Your task to perform on an android device: Show me recent news Image 0: 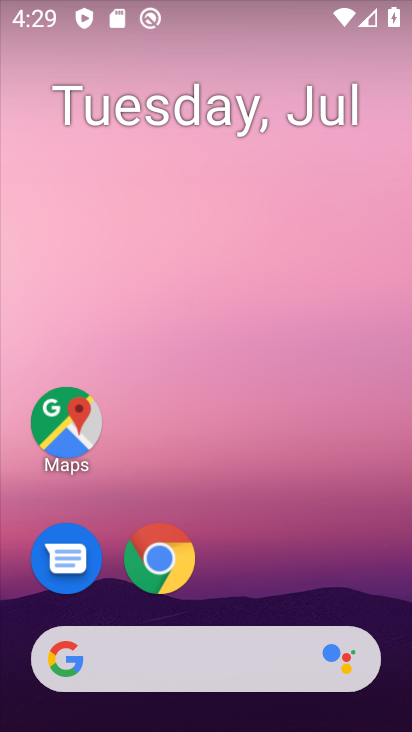
Step 0: drag from (281, 625) to (269, 144)
Your task to perform on an android device: Show me recent news Image 1: 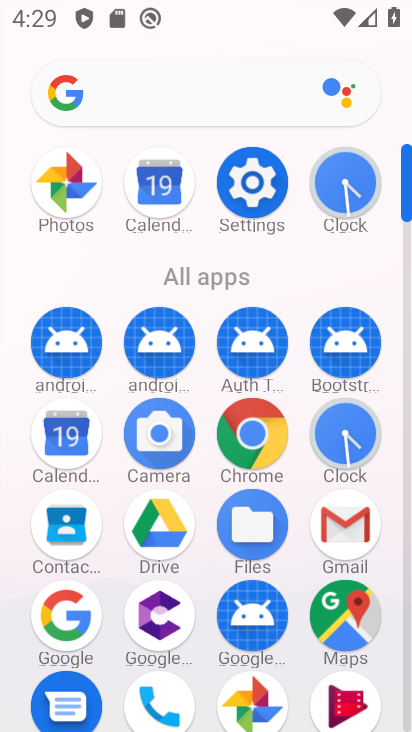
Step 1: drag from (241, 581) to (213, 263)
Your task to perform on an android device: Show me recent news Image 2: 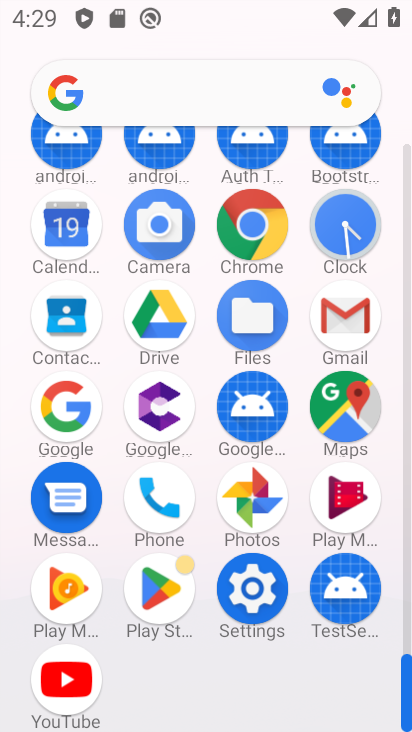
Step 2: click (79, 411)
Your task to perform on an android device: Show me recent news Image 3: 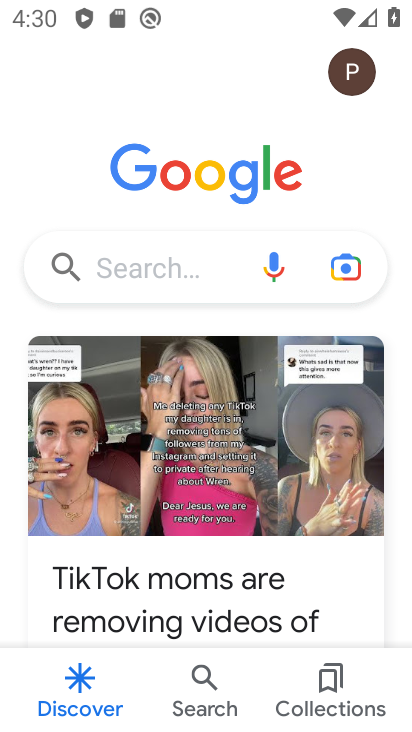
Step 3: click (142, 290)
Your task to perform on an android device: Show me recent news Image 4: 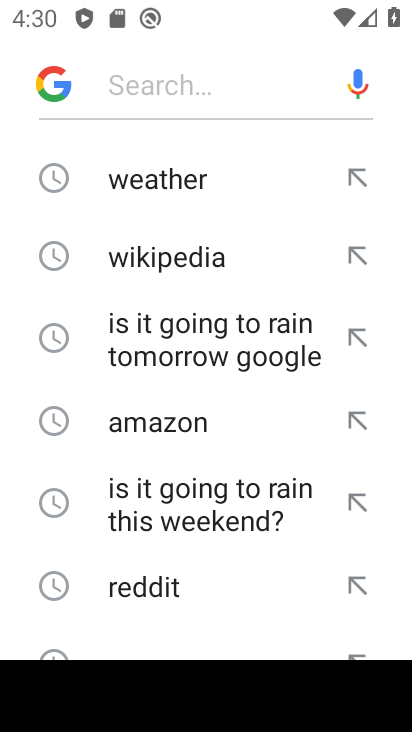
Step 4: drag from (200, 495) to (224, 226)
Your task to perform on an android device: Show me recent news Image 5: 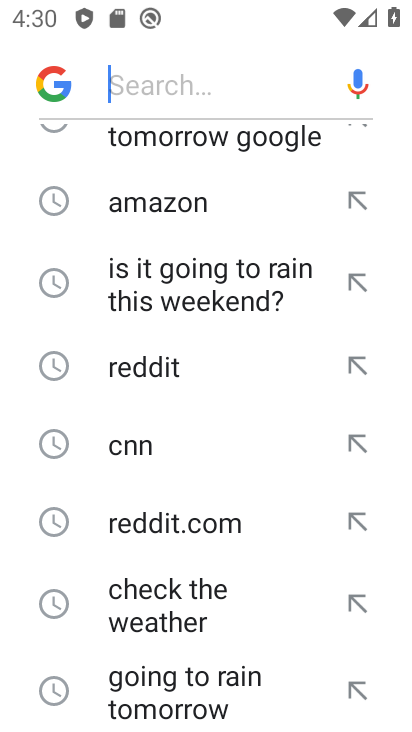
Step 5: drag from (205, 282) to (210, 677)
Your task to perform on an android device: Show me recent news Image 6: 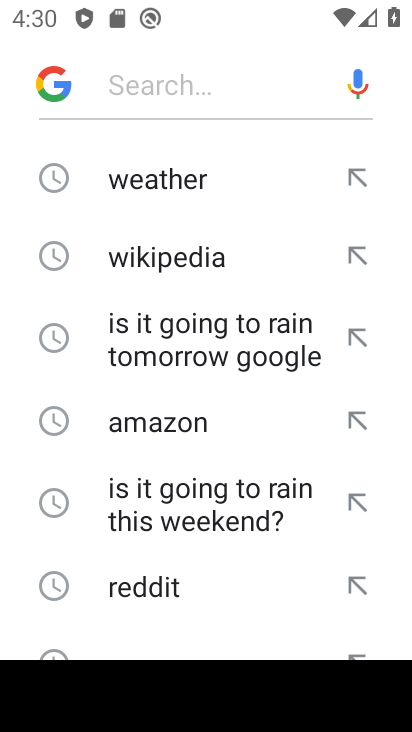
Step 6: type "recent news"
Your task to perform on an android device: Show me recent news Image 7: 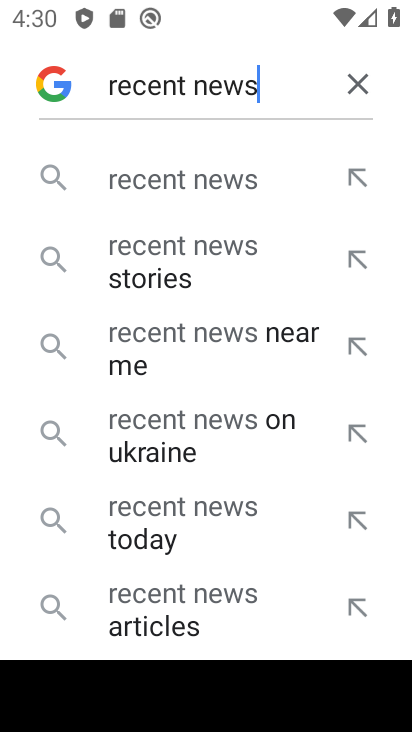
Step 7: click (215, 188)
Your task to perform on an android device: Show me recent news Image 8: 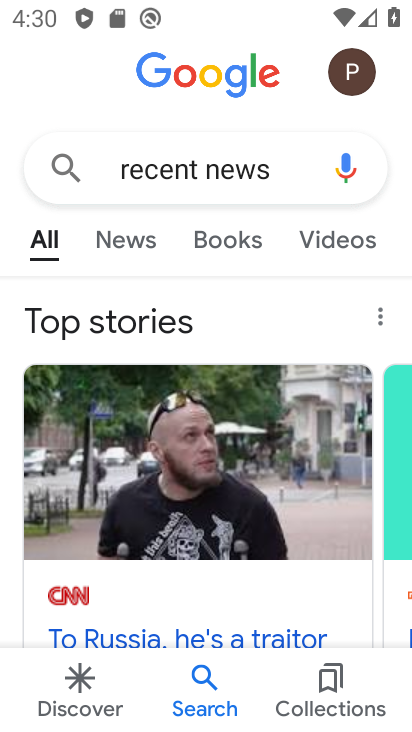
Step 8: click (126, 245)
Your task to perform on an android device: Show me recent news Image 9: 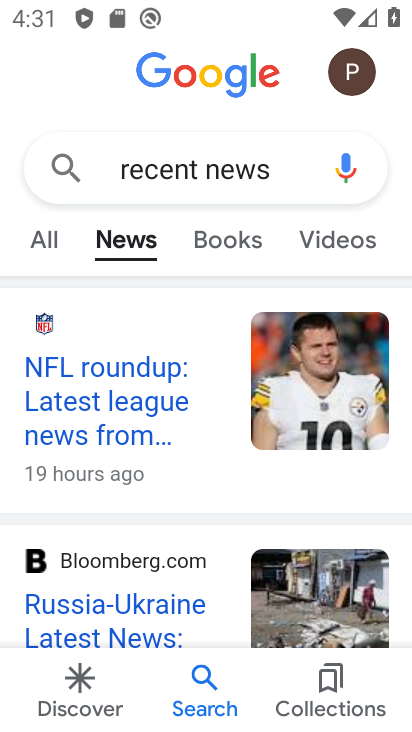
Step 9: task complete